Your task to perform on an android device: Turn off the flashlight Image 0: 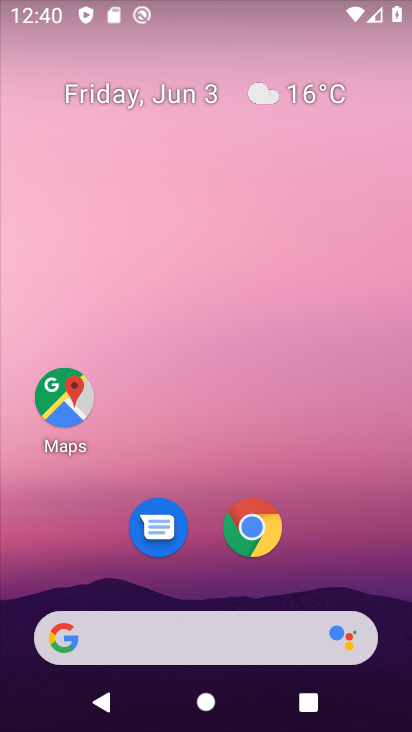
Step 0: drag from (251, 7) to (194, 726)
Your task to perform on an android device: Turn off the flashlight Image 1: 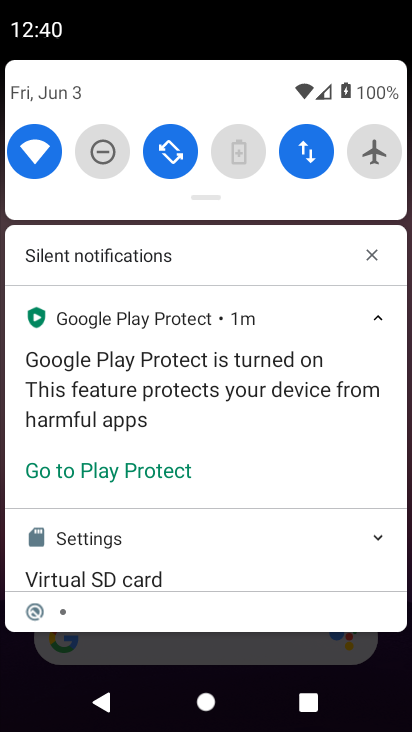
Step 1: task complete